Your task to perform on an android device: Go to internet settings Image 0: 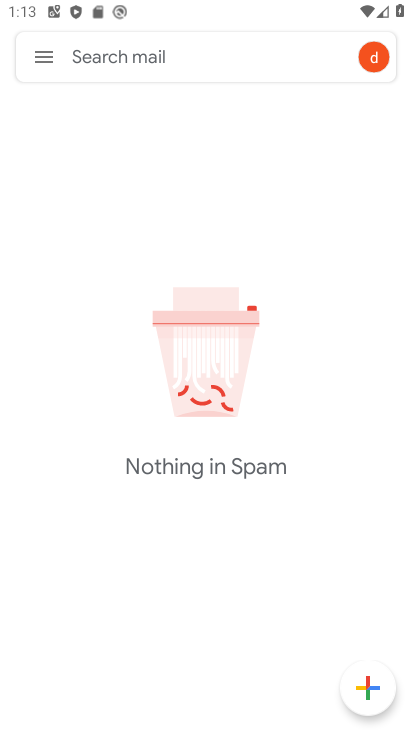
Step 0: press back button
Your task to perform on an android device: Go to internet settings Image 1: 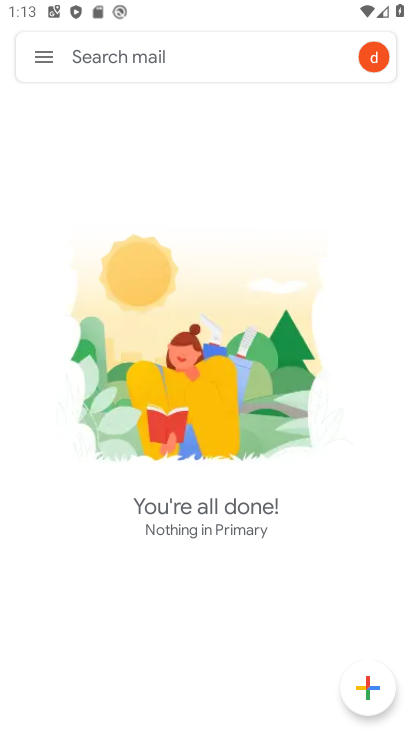
Step 1: press back button
Your task to perform on an android device: Go to internet settings Image 2: 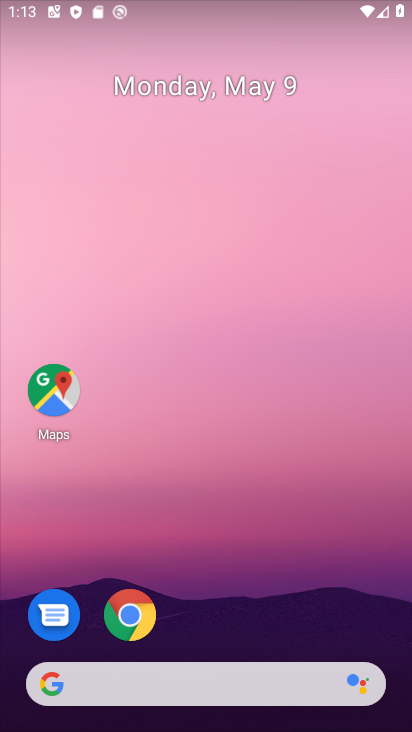
Step 2: drag from (240, 574) to (142, 126)
Your task to perform on an android device: Go to internet settings Image 3: 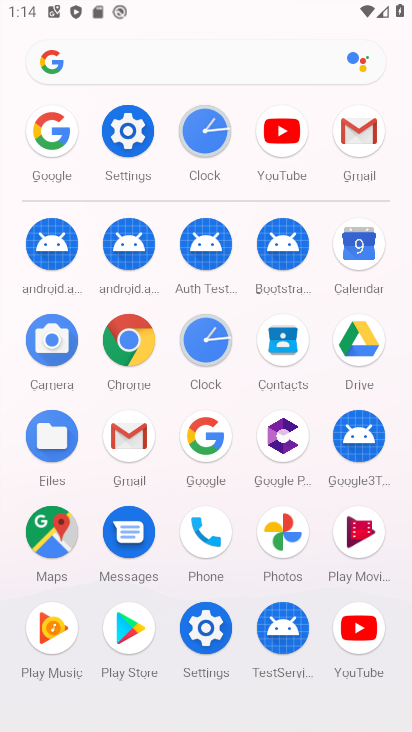
Step 3: click (129, 129)
Your task to perform on an android device: Go to internet settings Image 4: 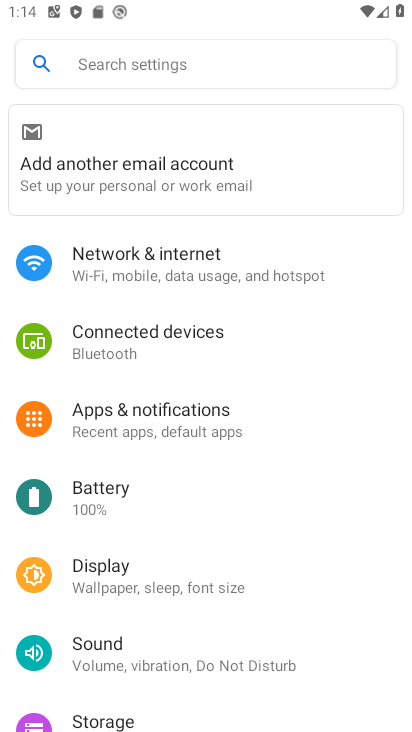
Step 4: click (162, 254)
Your task to perform on an android device: Go to internet settings Image 5: 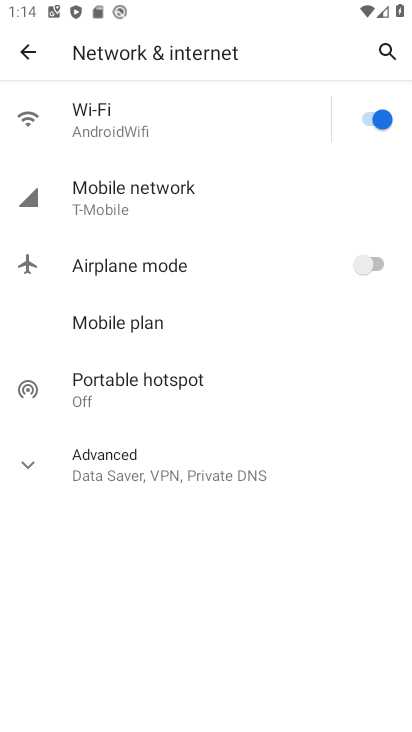
Step 5: click (112, 124)
Your task to perform on an android device: Go to internet settings Image 6: 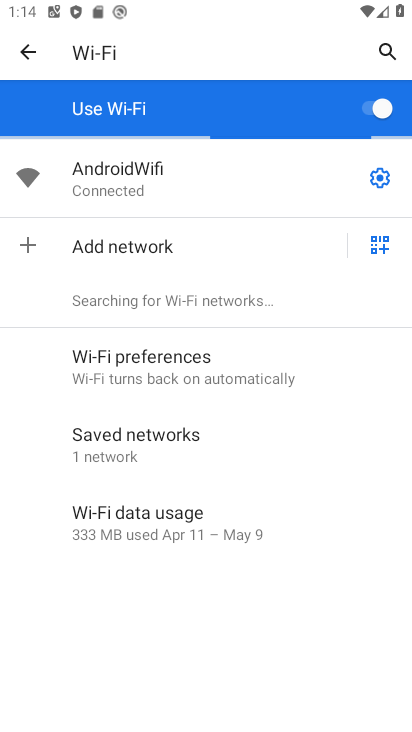
Step 6: click (385, 176)
Your task to perform on an android device: Go to internet settings Image 7: 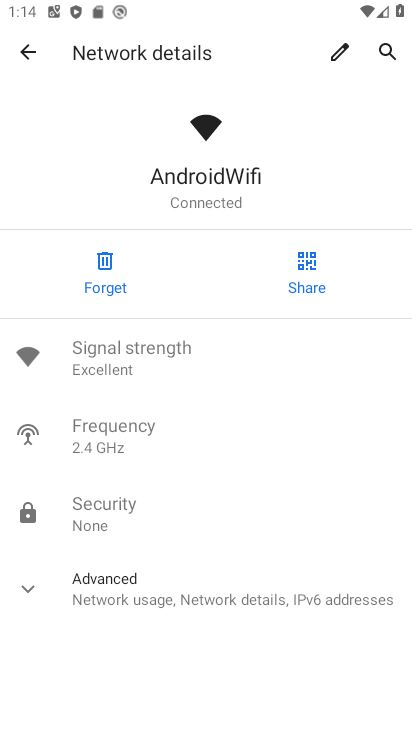
Step 7: click (55, 597)
Your task to perform on an android device: Go to internet settings Image 8: 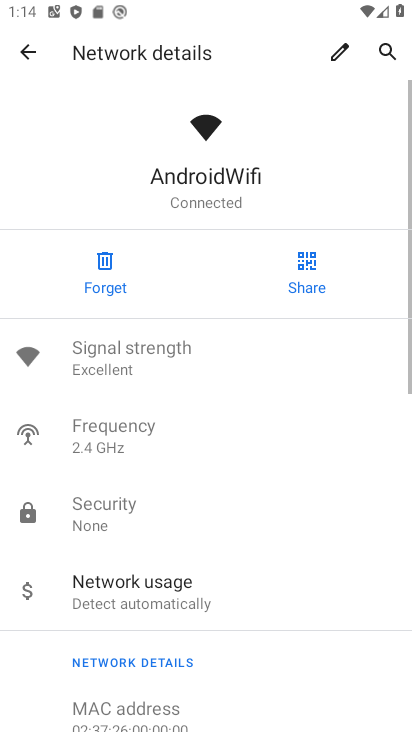
Step 8: task complete